Your task to perform on an android device: turn on the 12-hour format for clock Image 0: 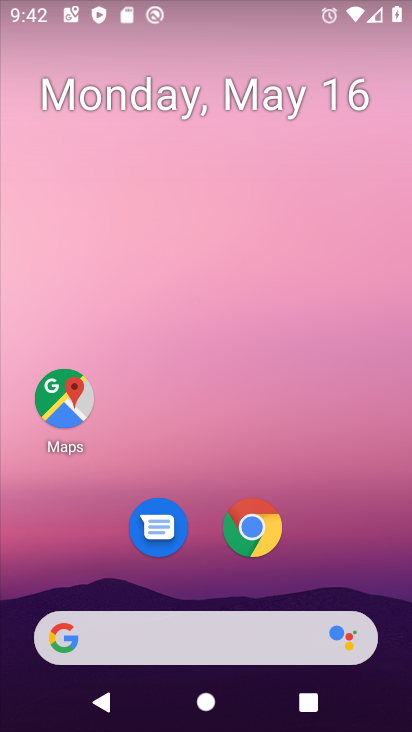
Step 0: drag from (366, 591) to (377, 10)
Your task to perform on an android device: turn on the 12-hour format for clock Image 1: 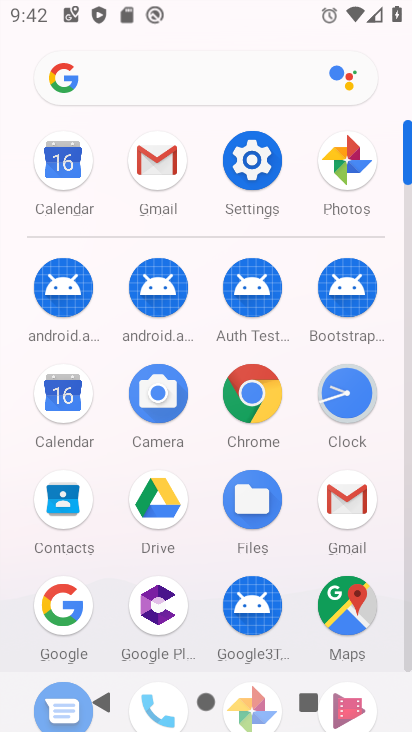
Step 1: click (341, 394)
Your task to perform on an android device: turn on the 12-hour format for clock Image 2: 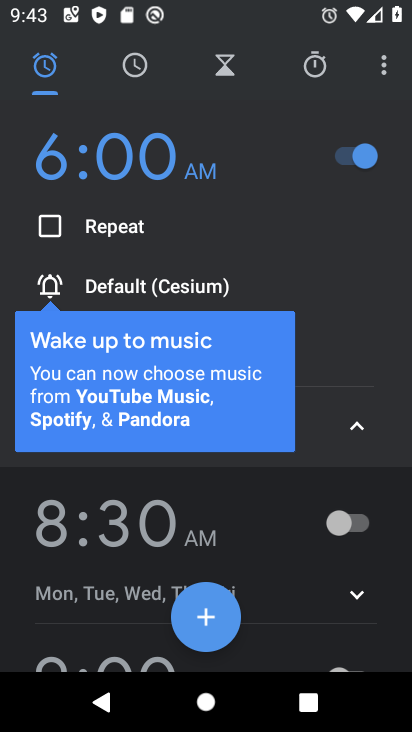
Step 2: click (386, 68)
Your task to perform on an android device: turn on the 12-hour format for clock Image 3: 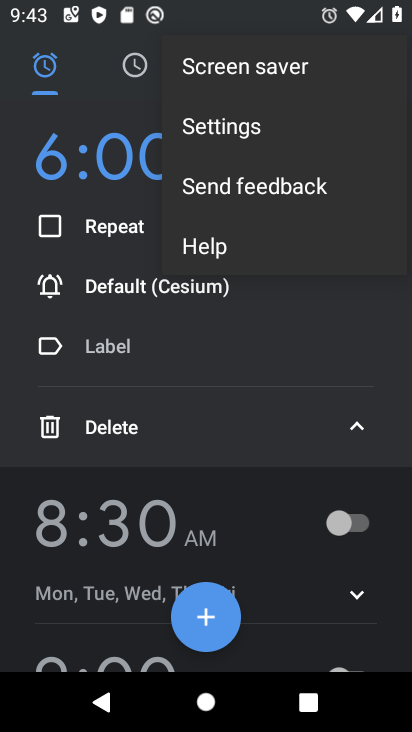
Step 3: click (215, 128)
Your task to perform on an android device: turn on the 12-hour format for clock Image 4: 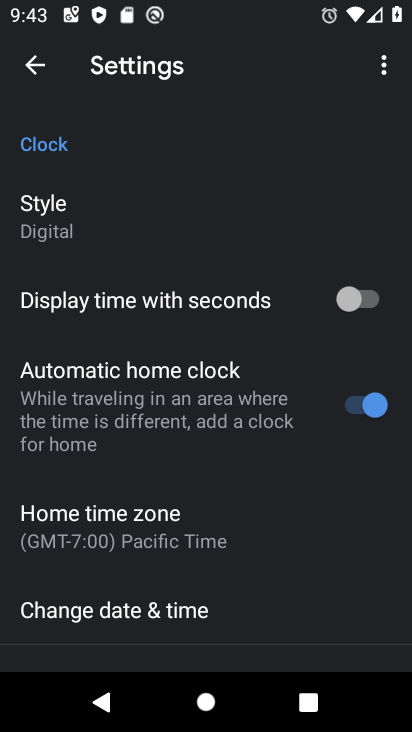
Step 4: click (113, 611)
Your task to perform on an android device: turn on the 12-hour format for clock Image 5: 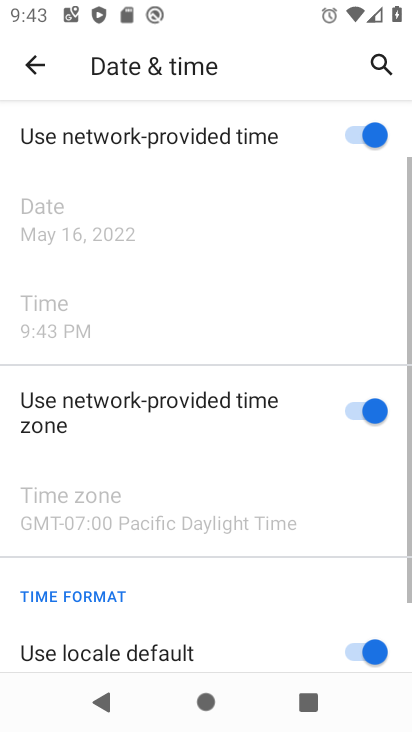
Step 5: task complete